Your task to perform on an android device: Open Google Chrome Image 0: 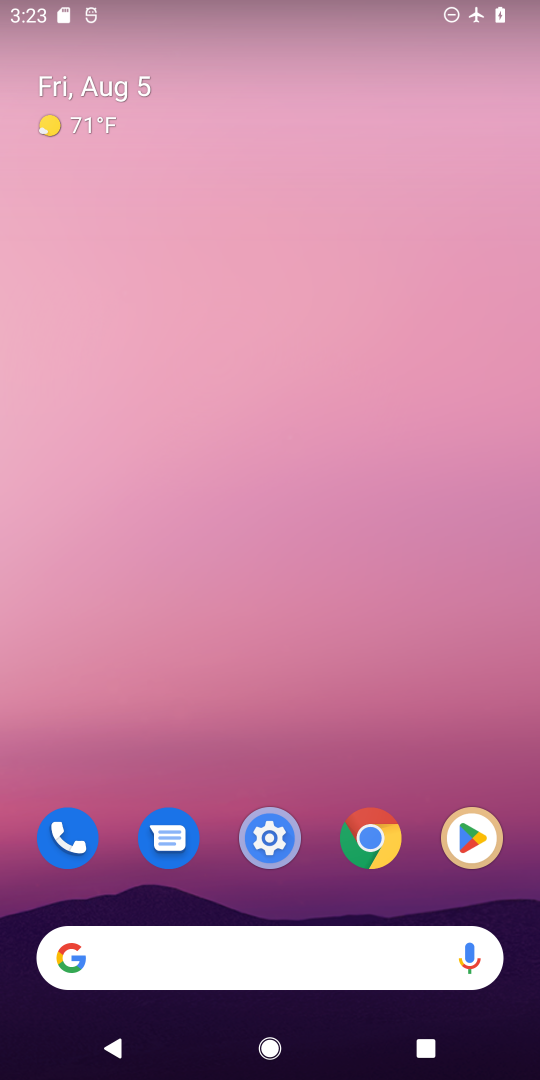
Step 0: click (362, 842)
Your task to perform on an android device: Open Google Chrome Image 1: 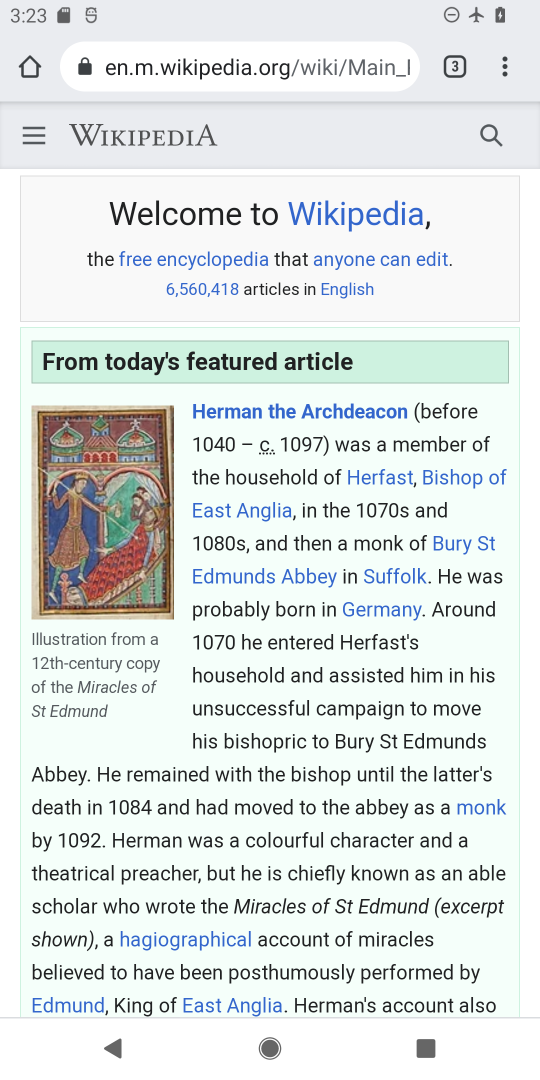
Step 1: task complete